Your task to perform on an android device: read, delete, or share a saved page in the chrome app Image 0: 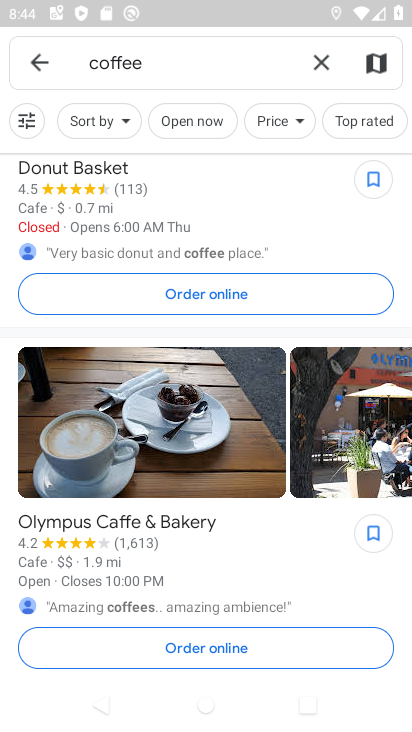
Step 0: press home button
Your task to perform on an android device: read, delete, or share a saved page in the chrome app Image 1: 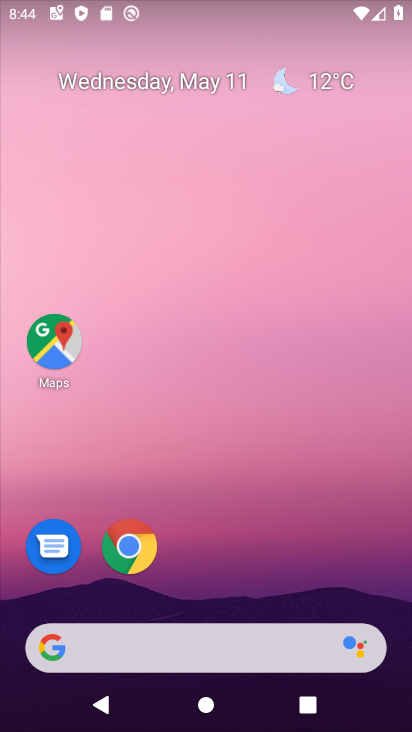
Step 1: click (130, 546)
Your task to perform on an android device: read, delete, or share a saved page in the chrome app Image 2: 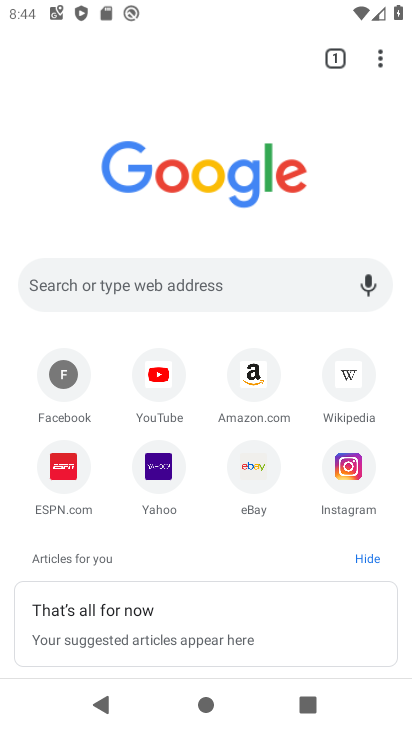
Step 2: click (381, 64)
Your task to perform on an android device: read, delete, or share a saved page in the chrome app Image 3: 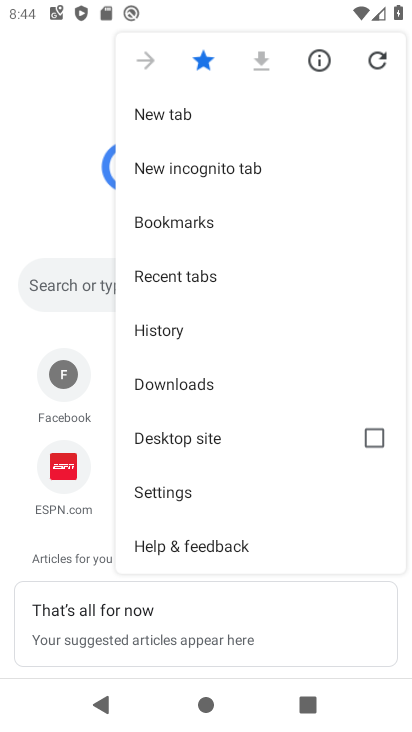
Step 3: click (177, 382)
Your task to perform on an android device: read, delete, or share a saved page in the chrome app Image 4: 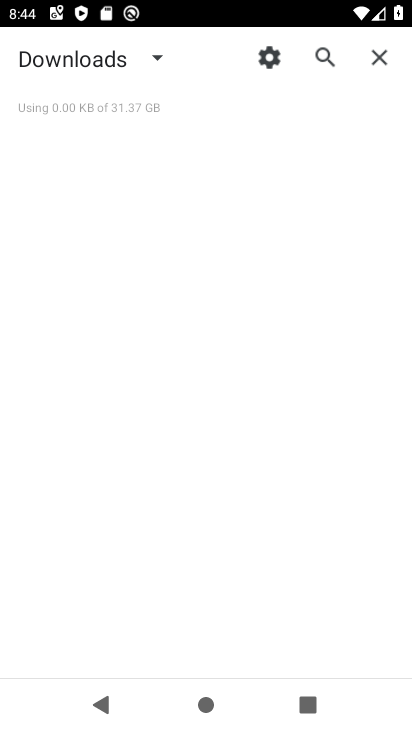
Step 4: click (154, 58)
Your task to perform on an android device: read, delete, or share a saved page in the chrome app Image 5: 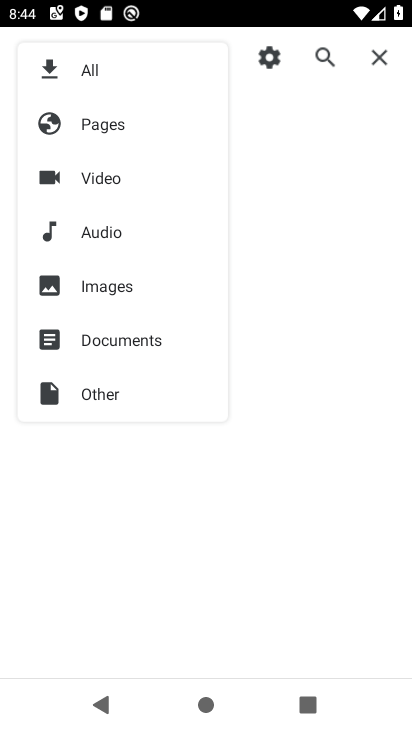
Step 5: click (94, 123)
Your task to perform on an android device: read, delete, or share a saved page in the chrome app Image 6: 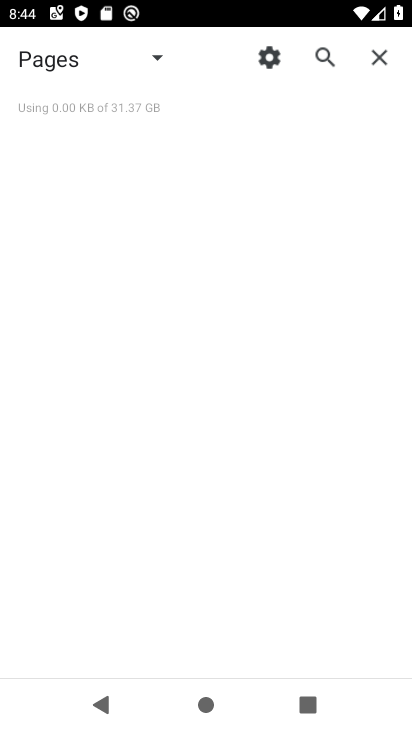
Step 6: task complete